Your task to perform on an android device: Go to Yahoo.com Image 0: 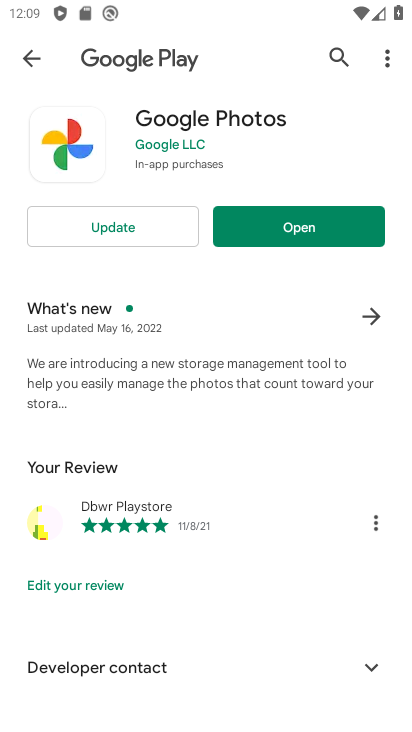
Step 0: press home button
Your task to perform on an android device: Go to Yahoo.com Image 1: 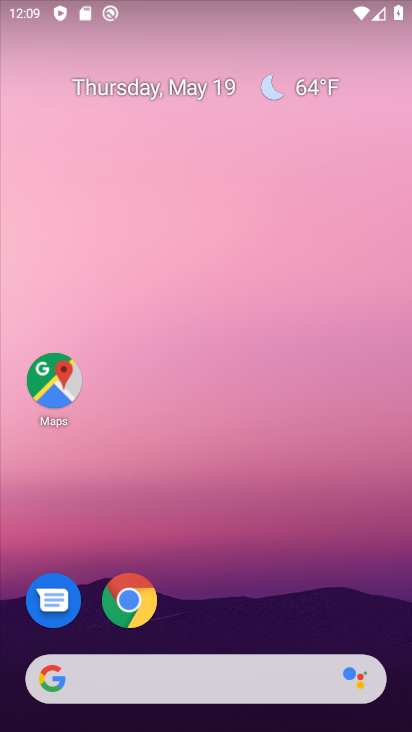
Step 1: drag from (189, 631) to (171, 42)
Your task to perform on an android device: Go to Yahoo.com Image 2: 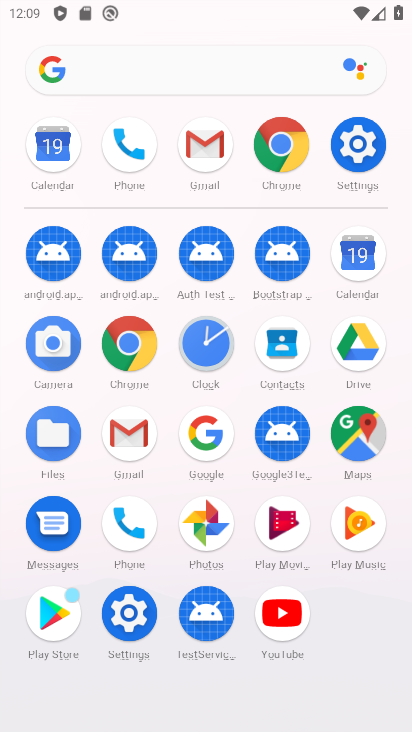
Step 2: click (114, 356)
Your task to perform on an android device: Go to Yahoo.com Image 3: 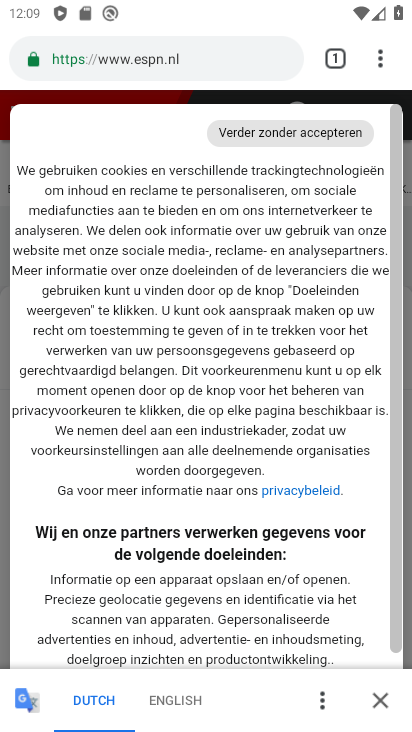
Step 3: click (336, 78)
Your task to perform on an android device: Go to Yahoo.com Image 4: 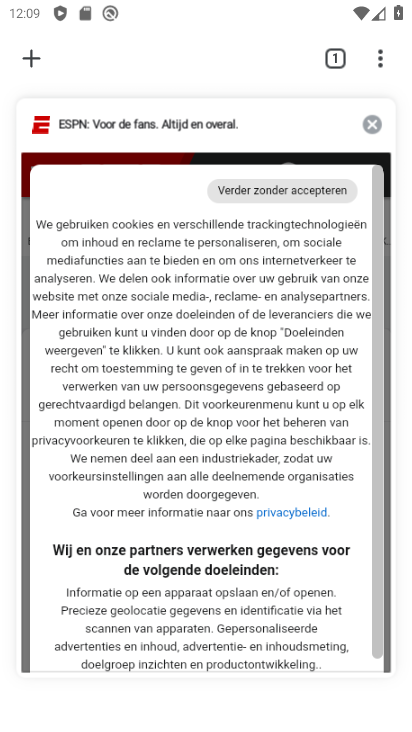
Step 4: click (29, 46)
Your task to perform on an android device: Go to Yahoo.com Image 5: 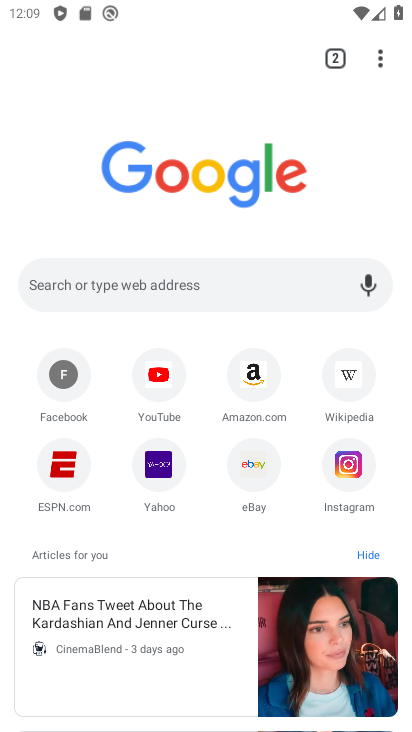
Step 5: click (160, 471)
Your task to perform on an android device: Go to Yahoo.com Image 6: 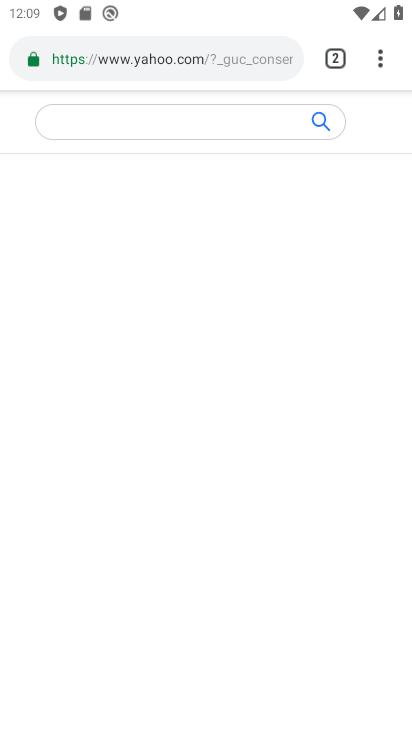
Step 6: task complete